Your task to perform on an android device: turn off priority inbox in the gmail app Image 0: 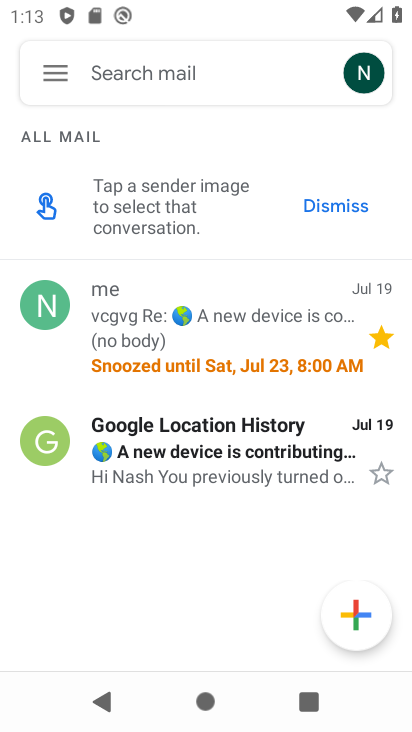
Step 0: press home button
Your task to perform on an android device: turn off priority inbox in the gmail app Image 1: 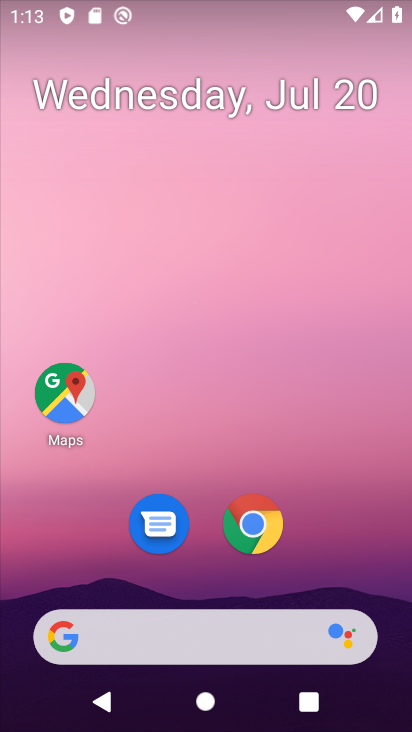
Step 1: drag from (335, 523) to (332, 124)
Your task to perform on an android device: turn off priority inbox in the gmail app Image 2: 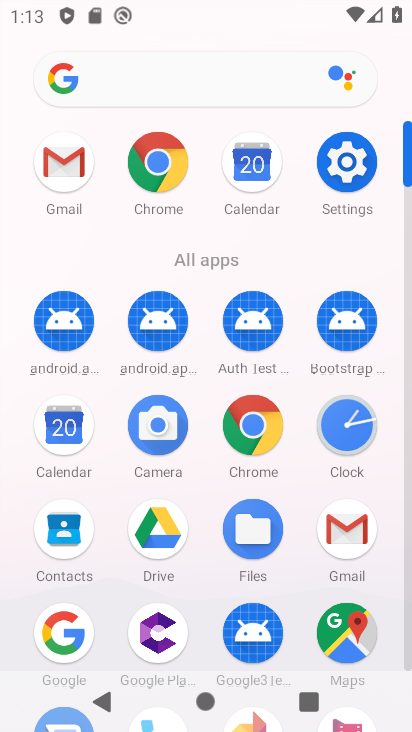
Step 2: click (74, 173)
Your task to perform on an android device: turn off priority inbox in the gmail app Image 3: 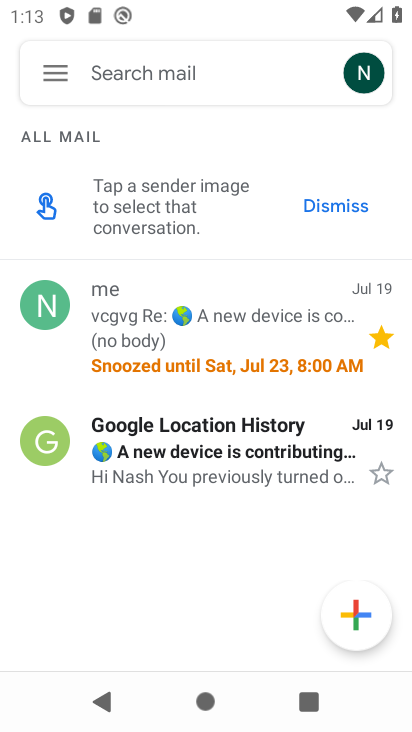
Step 3: click (45, 70)
Your task to perform on an android device: turn off priority inbox in the gmail app Image 4: 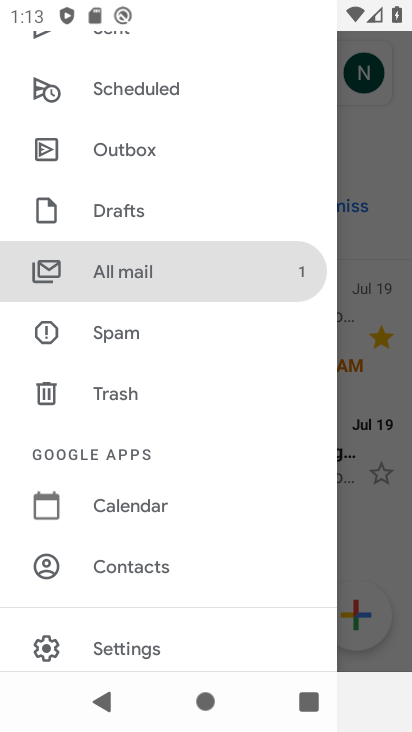
Step 4: click (151, 635)
Your task to perform on an android device: turn off priority inbox in the gmail app Image 5: 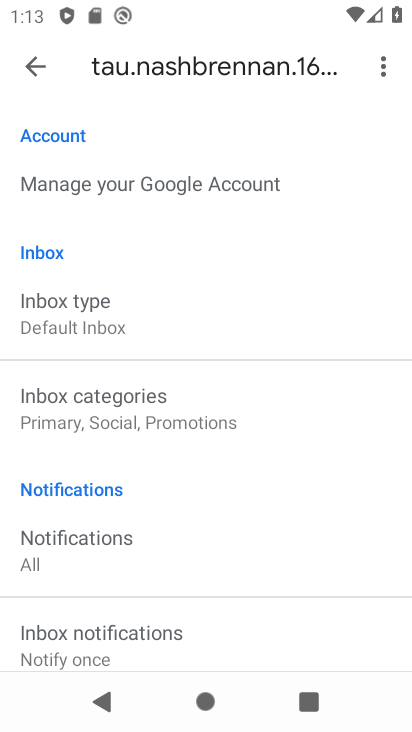
Step 5: click (94, 304)
Your task to perform on an android device: turn off priority inbox in the gmail app Image 6: 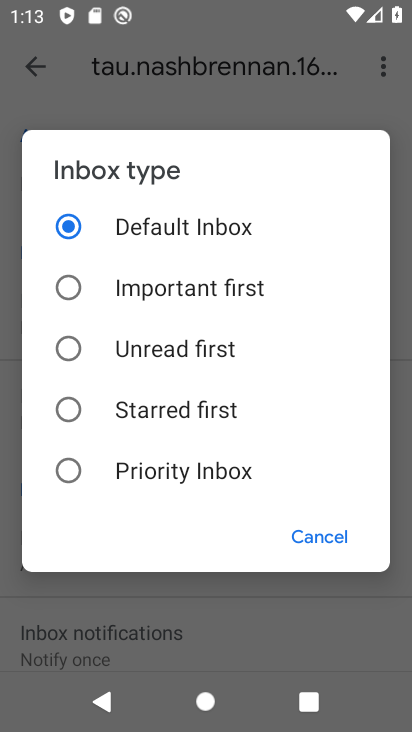
Step 6: click (317, 529)
Your task to perform on an android device: turn off priority inbox in the gmail app Image 7: 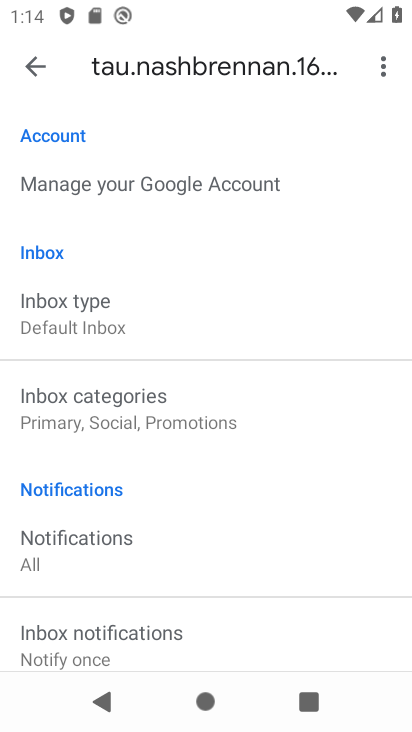
Step 7: task complete